Your task to perform on an android device: turn on sleep mode Image 0: 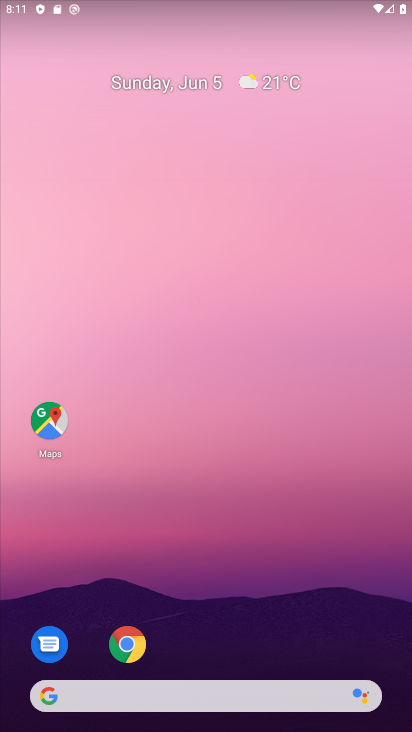
Step 0: task complete